Your task to perform on an android device: turn off translation in the chrome app Image 0: 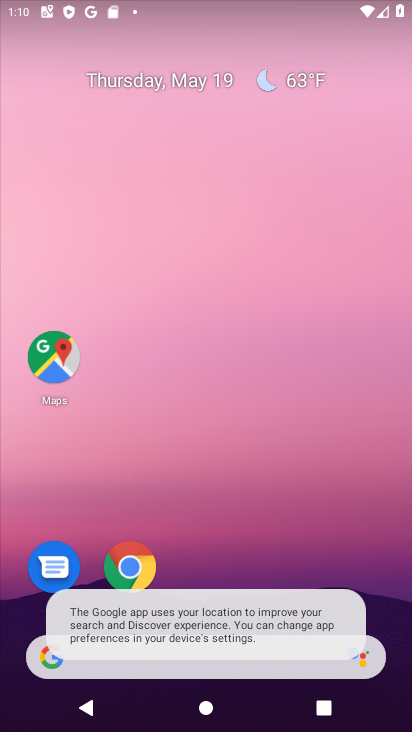
Step 0: drag from (336, 457) to (327, 79)
Your task to perform on an android device: turn off translation in the chrome app Image 1: 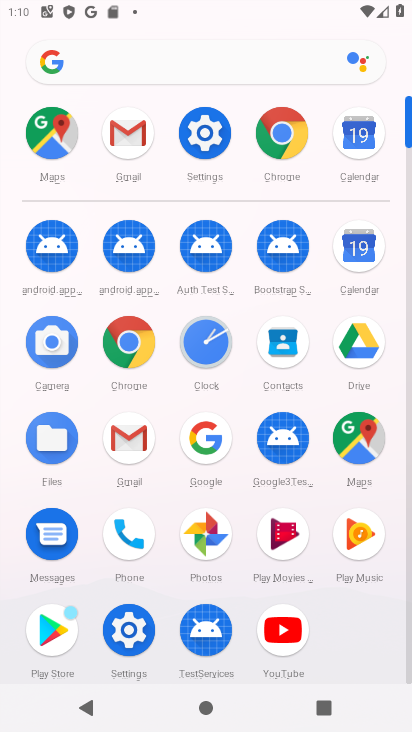
Step 1: click (291, 128)
Your task to perform on an android device: turn off translation in the chrome app Image 2: 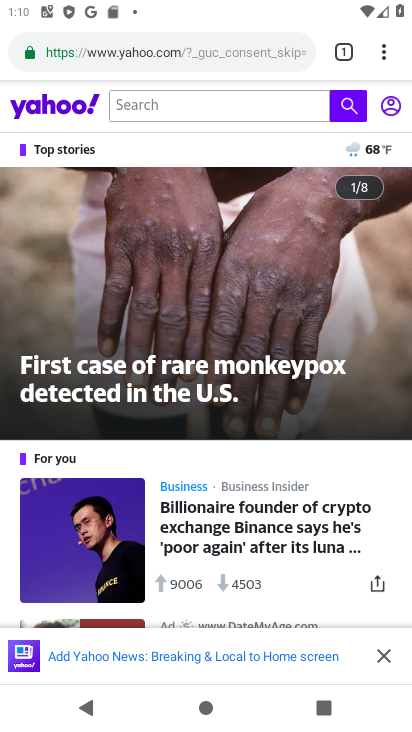
Step 2: drag from (382, 46) to (216, 616)
Your task to perform on an android device: turn off translation in the chrome app Image 3: 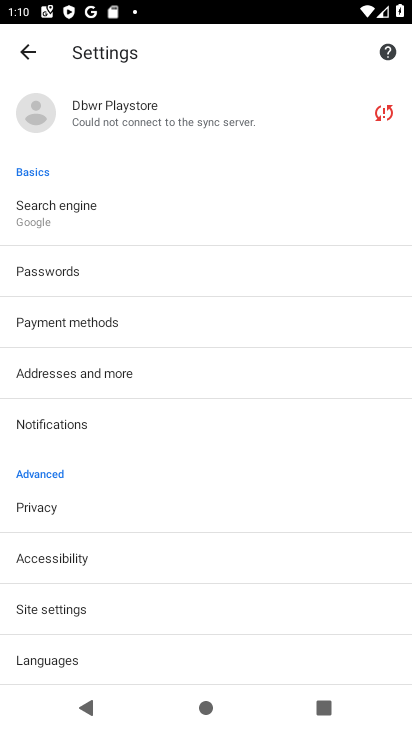
Step 3: drag from (180, 575) to (255, 244)
Your task to perform on an android device: turn off translation in the chrome app Image 4: 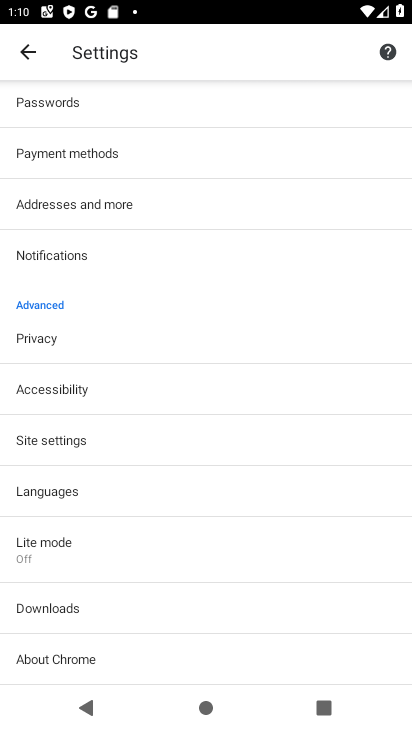
Step 4: click (104, 502)
Your task to perform on an android device: turn off translation in the chrome app Image 5: 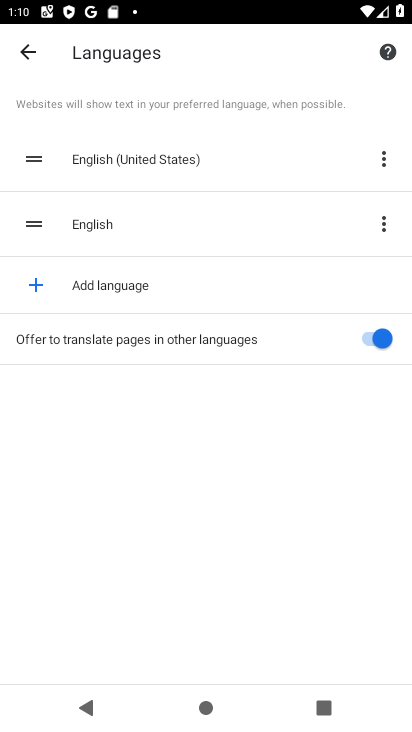
Step 5: click (371, 336)
Your task to perform on an android device: turn off translation in the chrome app Image 6: 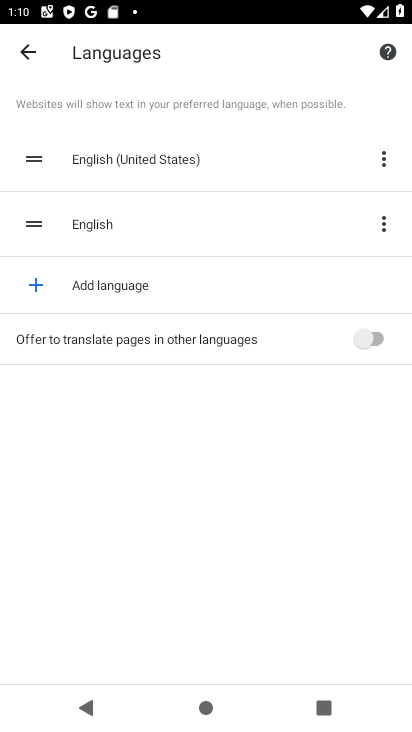
Step 6: task complete